Your task to perform on an android device: refresh tabs in the chrome app Image 0: 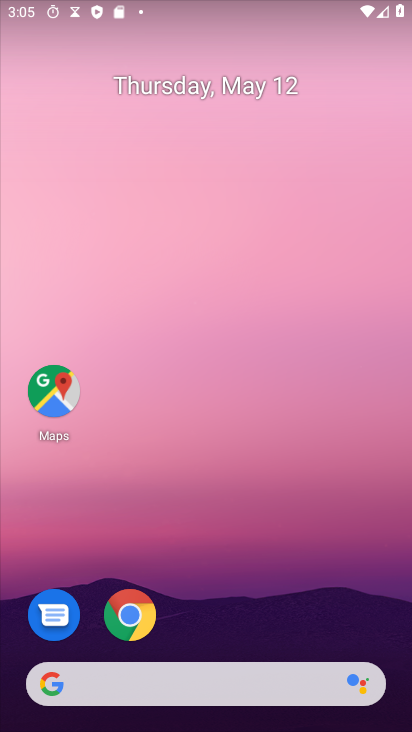
Step 0: click (127, 618)
Your task to perform on an android device: refresh tabs in the chrome app Image 1: 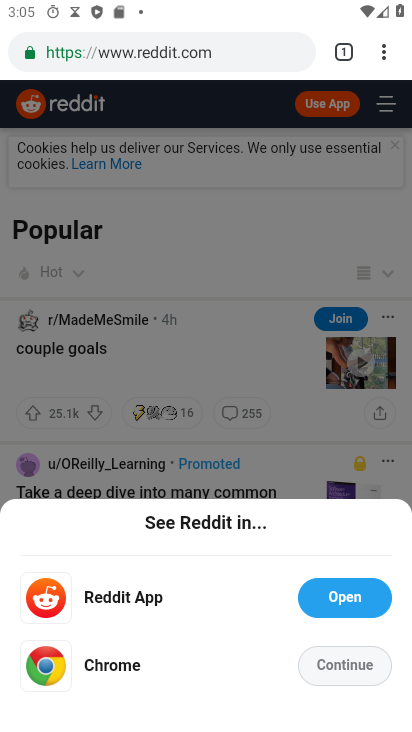
Step 1: click (379, 47)
Your task to perform on an android device: refresh tabs in the chrome app Image 2: 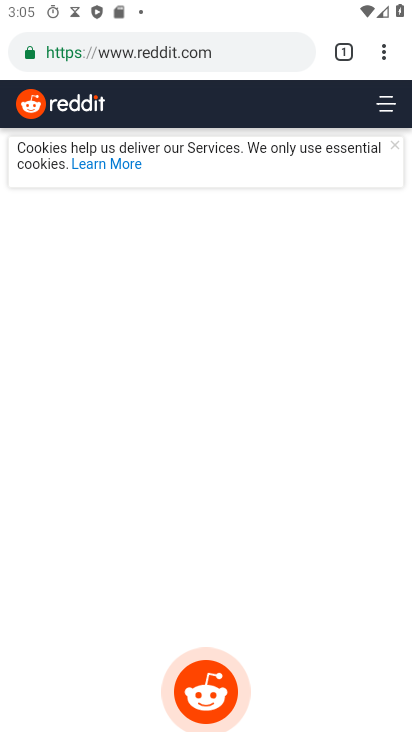
Step 2: click (380, 48)
Your task to perform on an android device: refresh tabs in the chrome app Image 3: 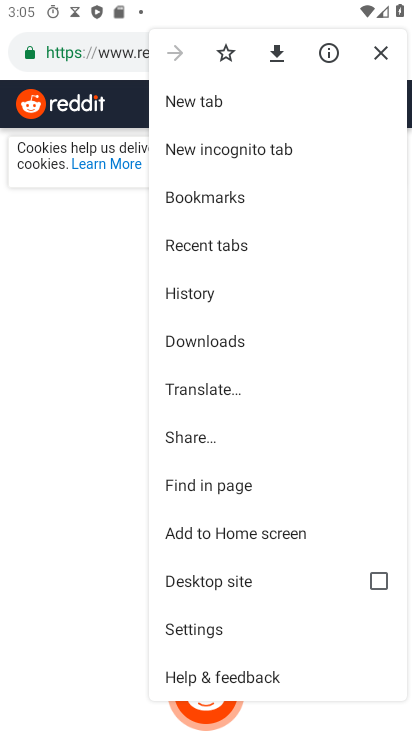
Step 3: click (68, 286)
Your task to perform on an android device: refresh tabs in the chrome app Image 4: 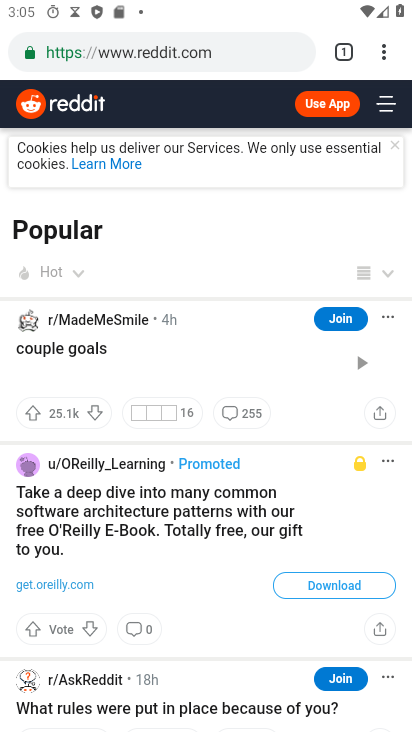
Step 4: click (67, 288)
Your task to perform on an android device: refresh tabs in the chrome app Image 5: 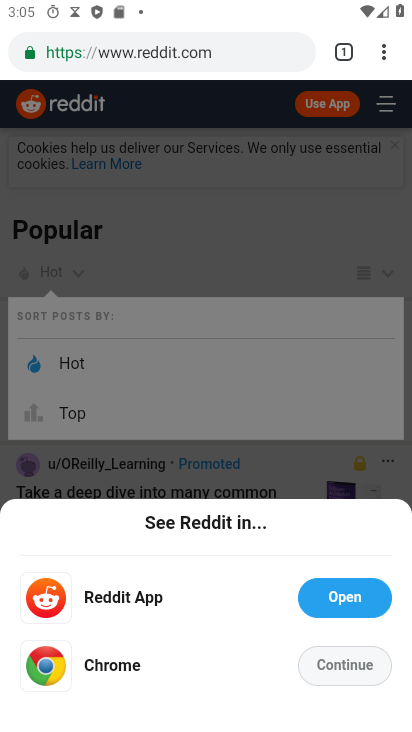
Step 5: click (384, 61)
Your task to perform on an android device: refresh tabs in the chrome app Image 6: 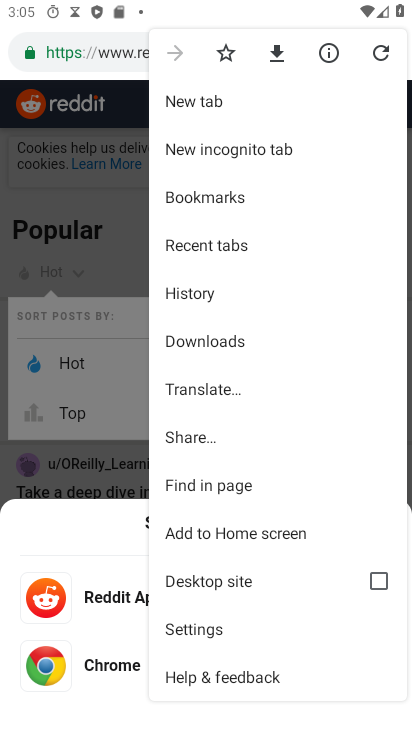
Step 6: click (387, 60)
Your task to perform on an android device: refresh tabs in the chrome app Image 7: 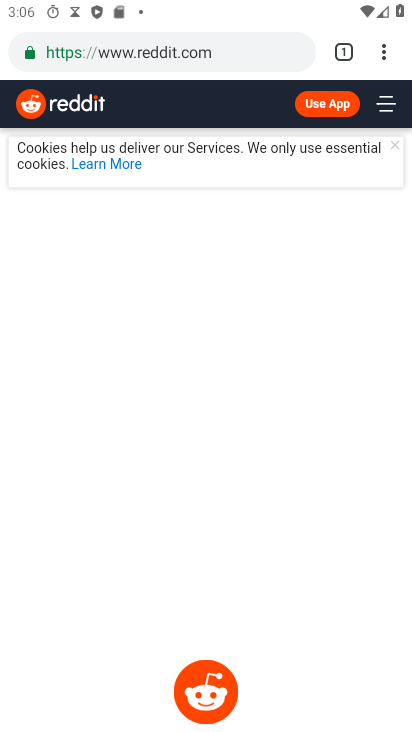
Step 7: task complete